Your task to perform on an android device: Open eBay Image 0: 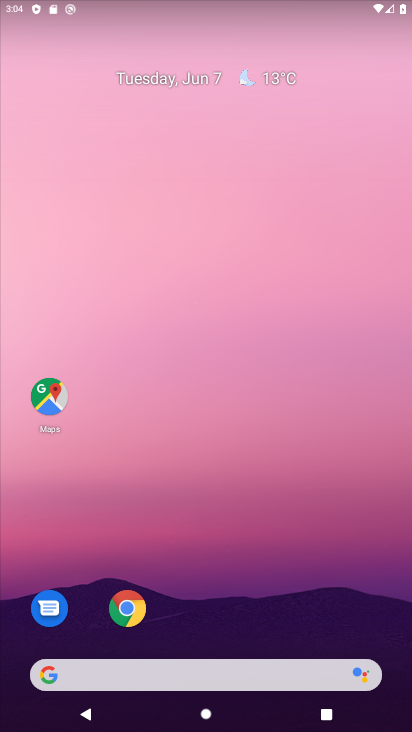
Step 0: click (136, 605)
Your task to perform on an android device: Open eBay Image 1: 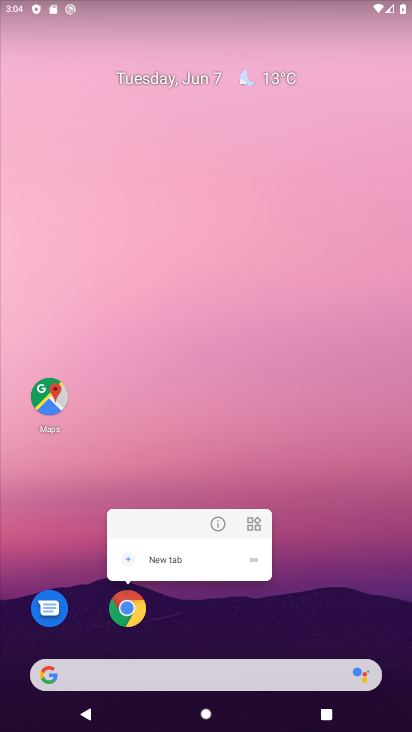
Step 1: click (129, 611)
Your task to perform on an android device: Open eBay Image 2: 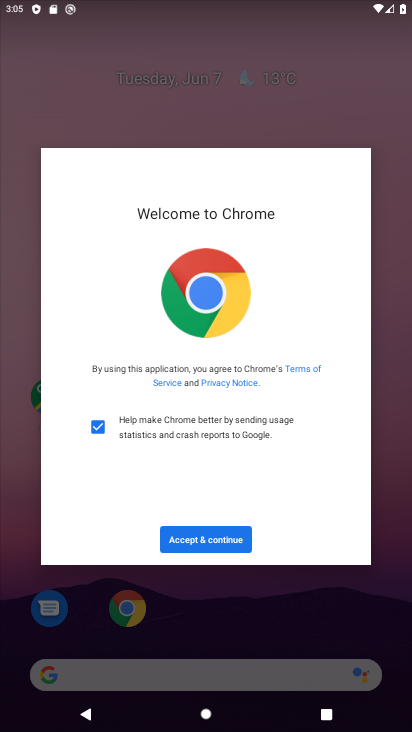
Step 2: click (230, 544)
Your task to perform on an android device: Open eBay Image 3: 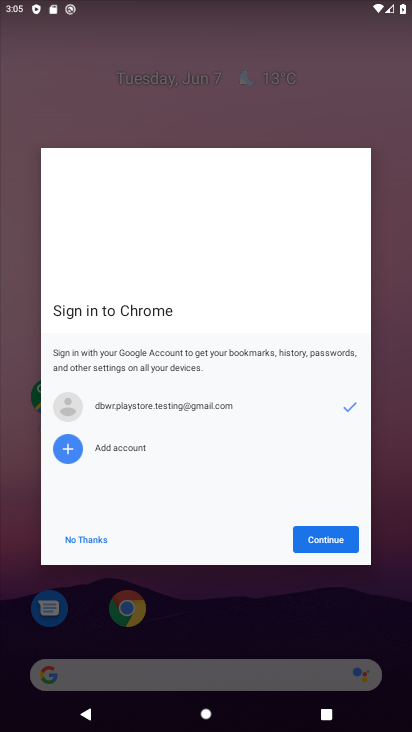
Step 3: click (322, 541)
Your task to perform on an android device: Open eBay Image 4: 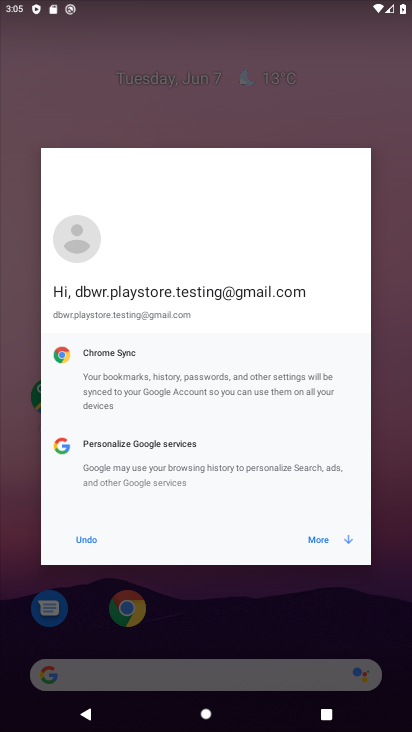
Step 4: click (317, 541)
Your task to perform on an android device: Open eBay Image 5: 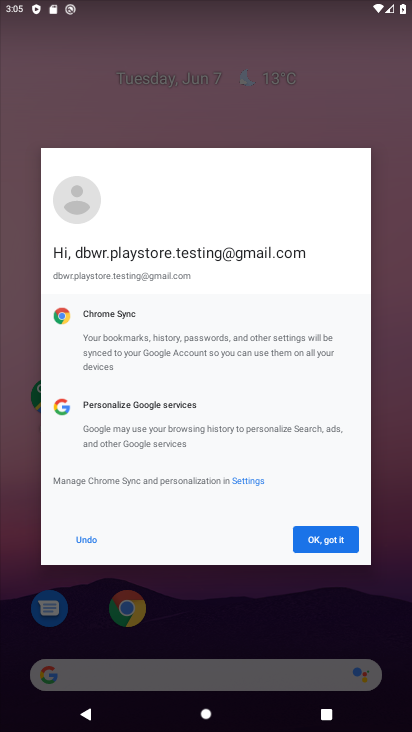
Step 5: click (316, 542)
Your task to perform on an android device: Open eBay Image 6: 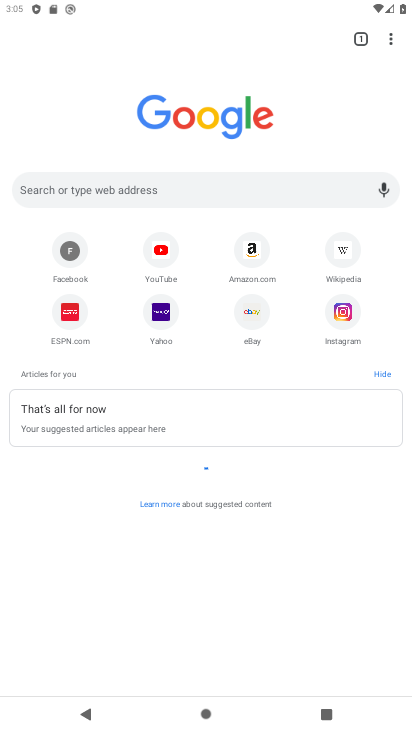
Step 6: click (132, 200)
Your task to perform on an android device: Open eBay Image 7: 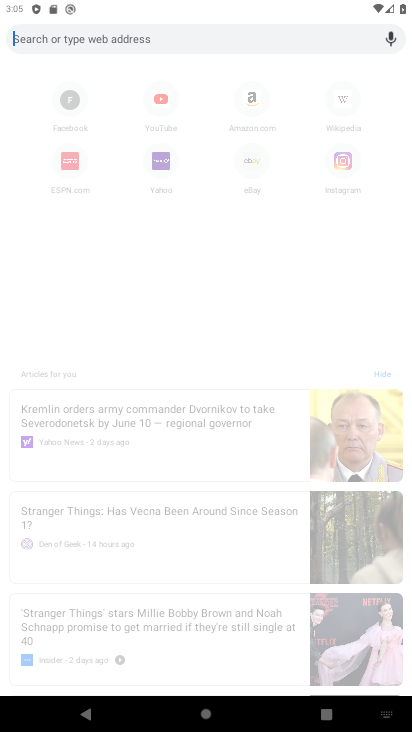
Step 7: type "eBay"
Your task to perform on an android device: Open eBay Image 8: 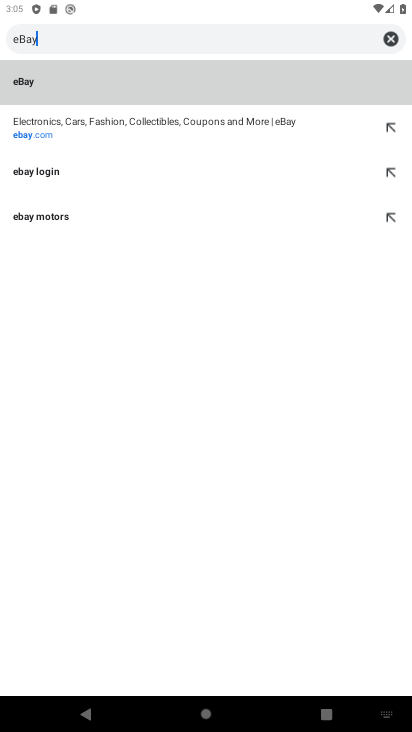
Step 8: click (138, 121)
Your task to perform on an android device: Open eBay Image 9: 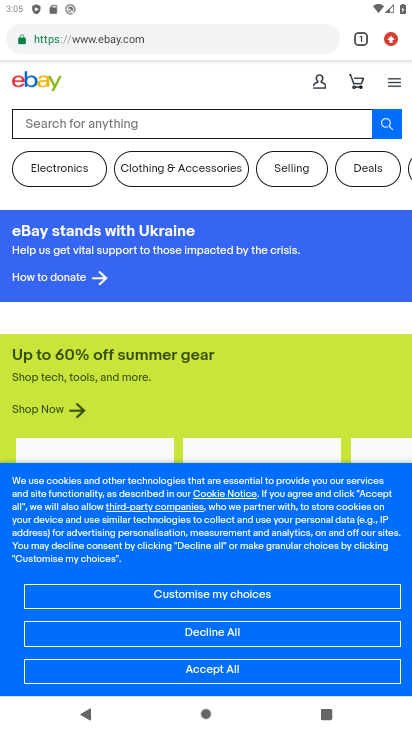
Step 9: task complete